Your task to perform on an android device: Open Chrome and go to settings Image 0: 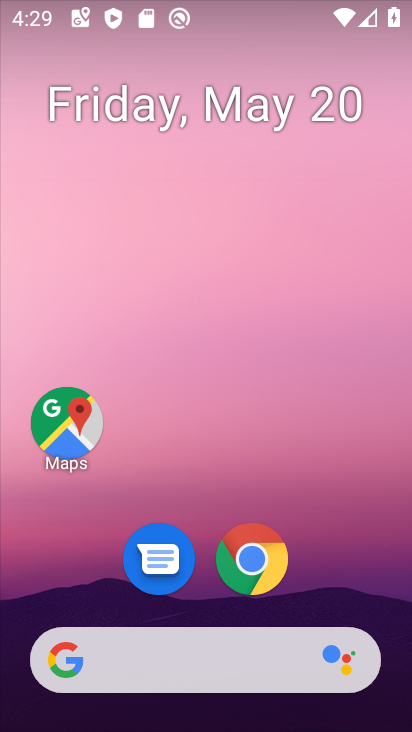
Step 0: click (246, 561)
Your task to perform on an android device: Open Chrome and go to settings Image 1: 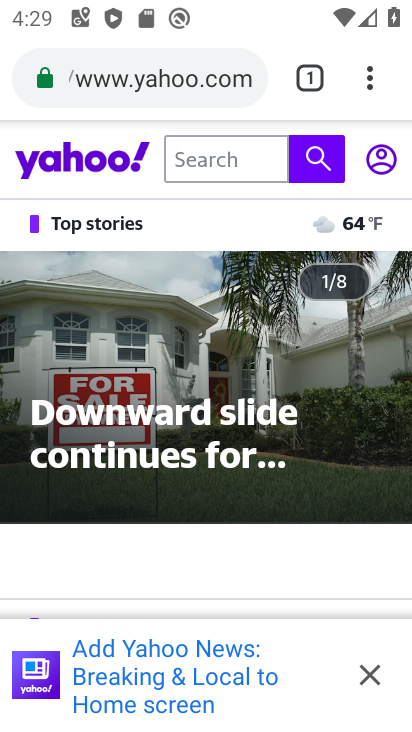
Step 1: click (371, 75)
Your task to perform on an android device: Open Chrome and go to settings Image 2: 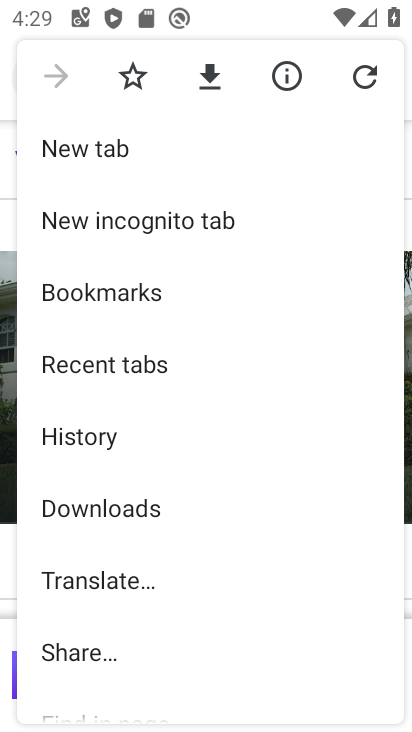
Step 2: drag from (160, 621) to (154, 158)
Your task to perform on an android device: Open Chrome and go to settings Image 3: 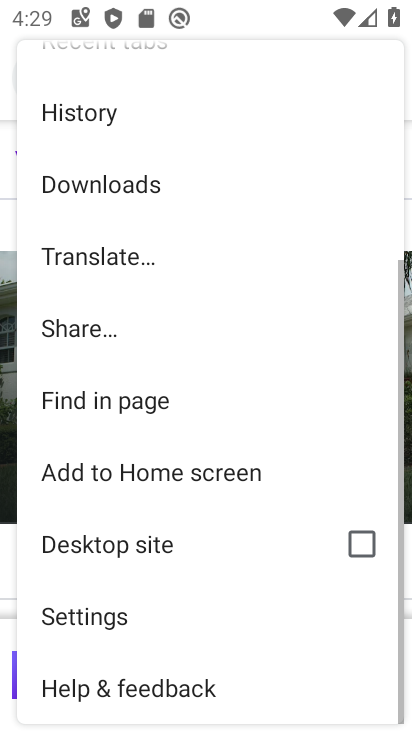
Step 3: click (120, 602)
Your task to perform on an android device: Open Chrome and go to settings Image 4: 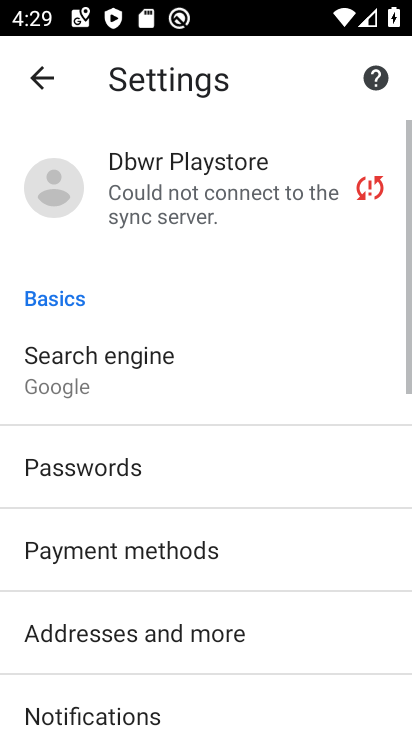
Step 4: task complete